Your task to perform on an android device: turn off wifi Image 0: 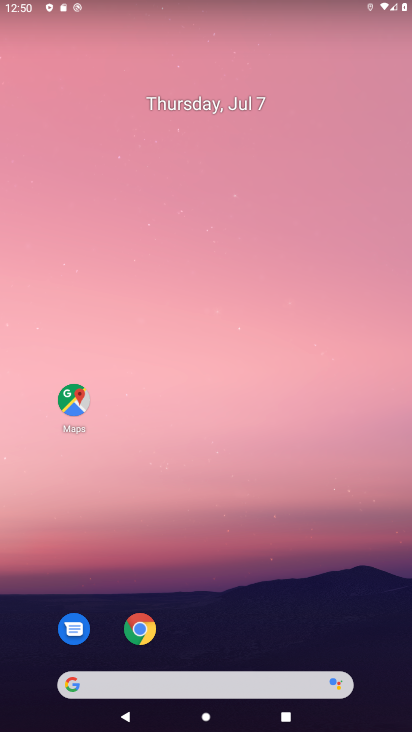
Step 0: drag from (227, 646) to (229, 155)
Your task to perform on an android device: turn off wifi Image 1: 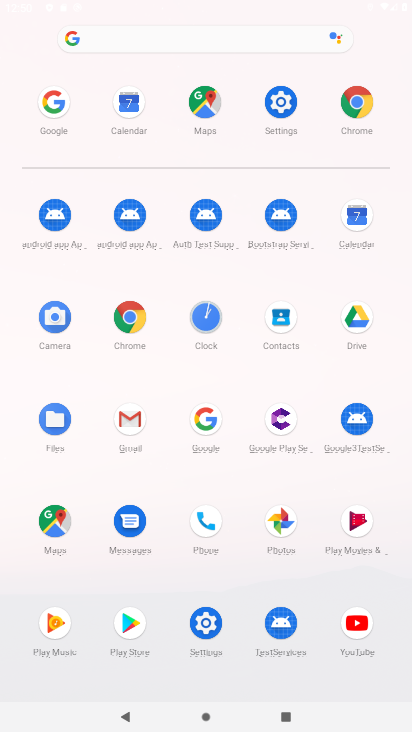
Step 1: click (209, 616)
Your task to perform on an android device: turn off wifi Image 2: 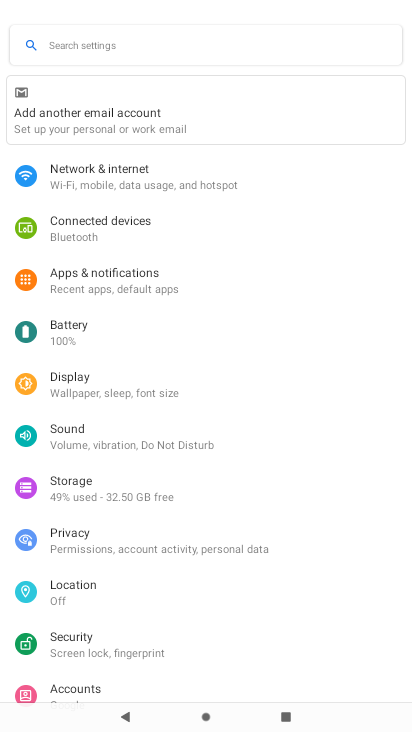
Step 2: click (155, 178)
Your task to perform on an android device: turn off wifi Image 3: 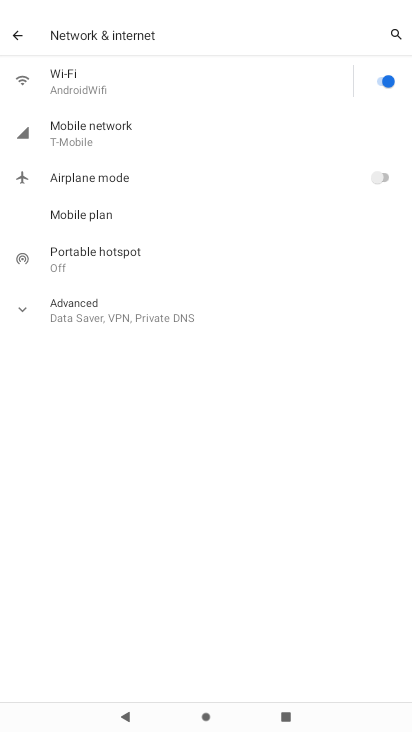
Step 3: click (388, 78)
Your task to perform on an android device: turn off wifi Image 4: 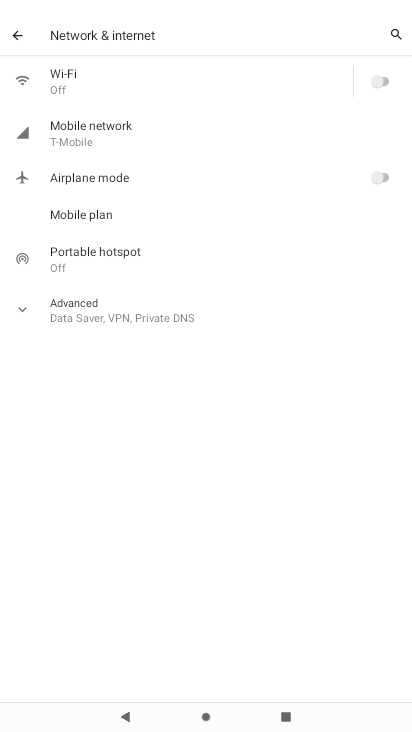
Step 4: task complete